Your task to perform on an android device: toggle data saver in the chrome app Image 0: 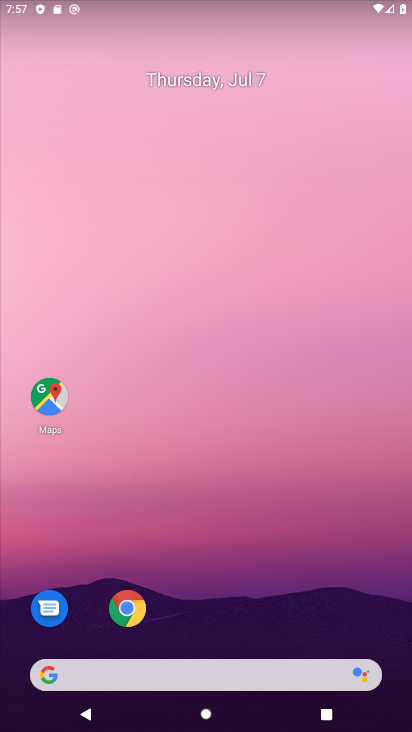
Step 0: click (121, 598)
Your task to perform on an android device: toggle data saver in the chrome app Image 1: 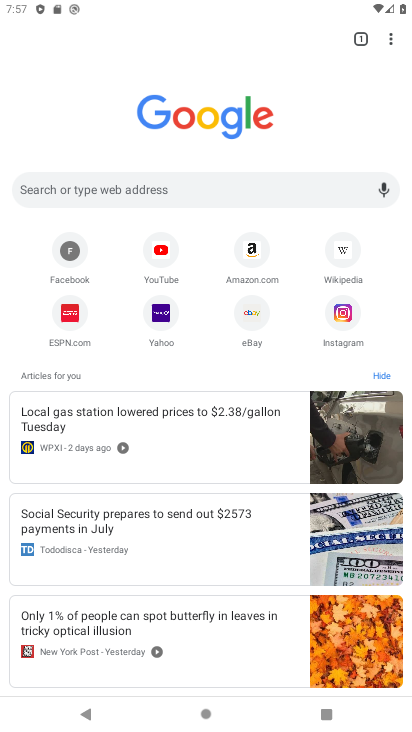
Step 1: click (391, 32)
Your task to perform on an android device: toggle data saver in the chrome app Image 2: 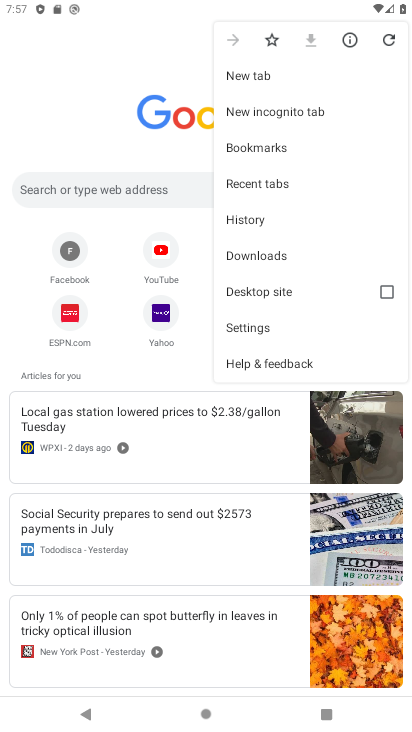
Step 2: click (278, 324)
Your task to perform on an android device: toggle data saver in the chrome app Image 3: 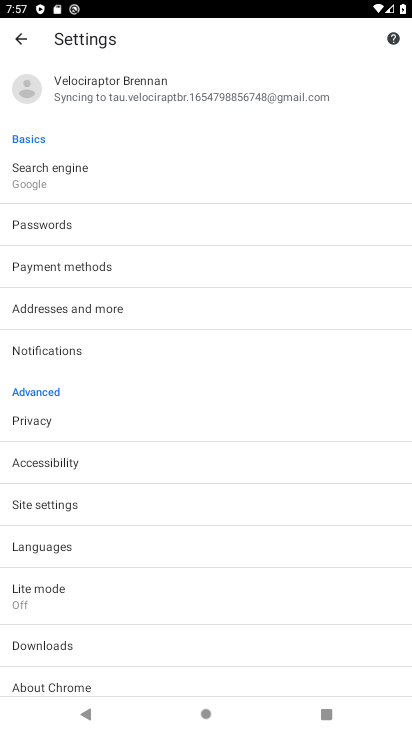
Step 3: click (82, 588)
Your task to perform on an android device: toggle data saver in the chrome app Image 4: 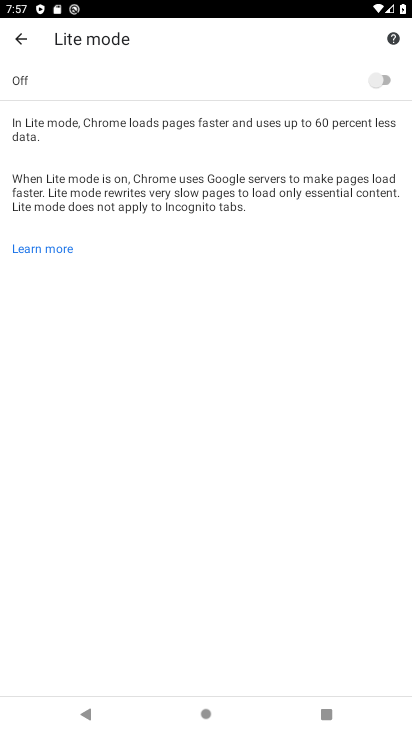
Step 4: click (381, 79)
Your task to perform on an android device: toggle data saver in the chrome app Image 5: 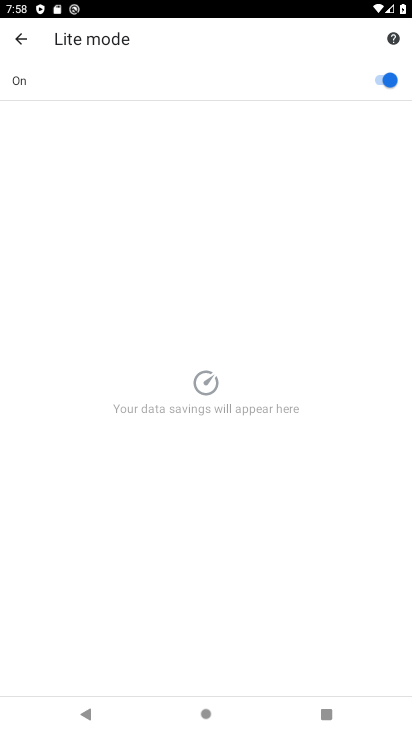
Step 5: task complete